Your task to perform on an android device: What's on my calendar tomorrow? Image 0: 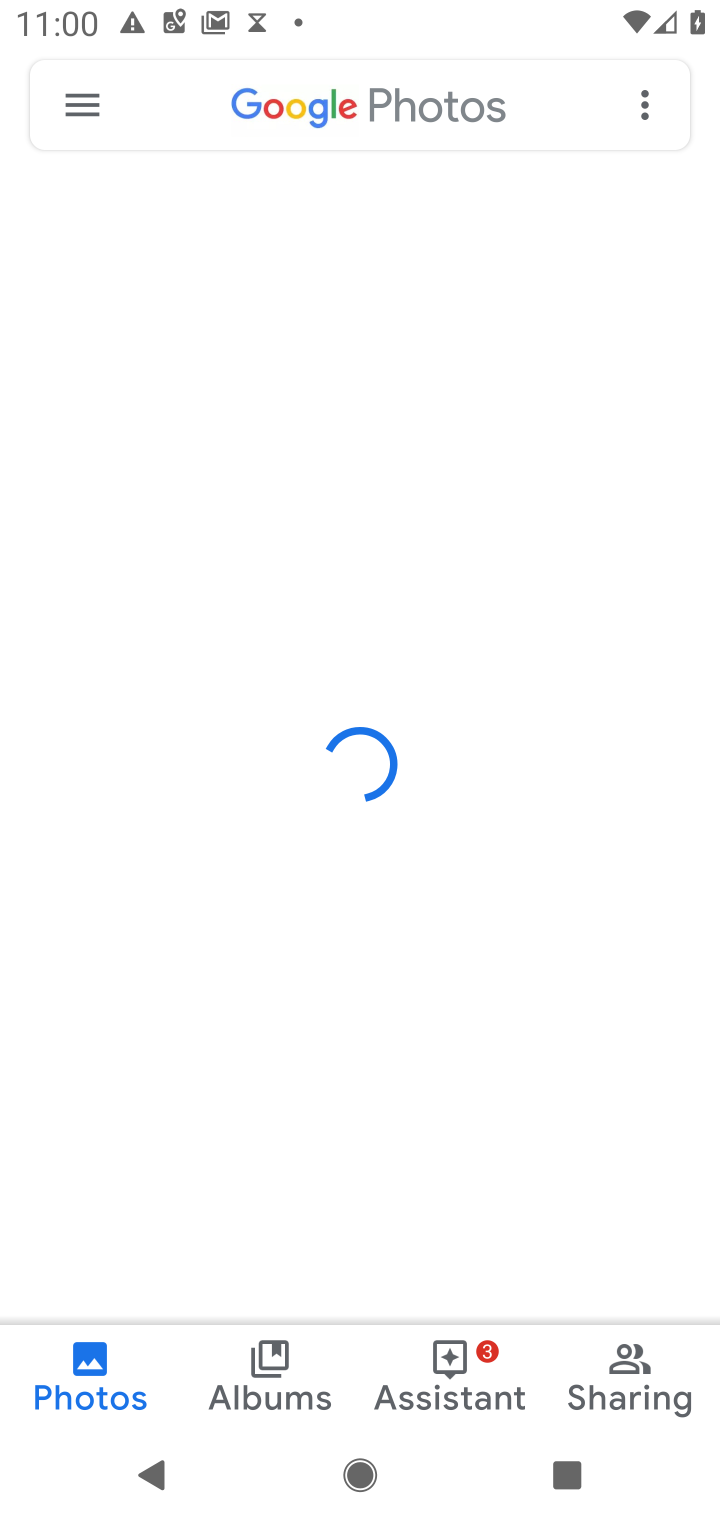
Step 0: press home button
Your task to perform on an android device: What's on my calendar tomorrow? Image 1: 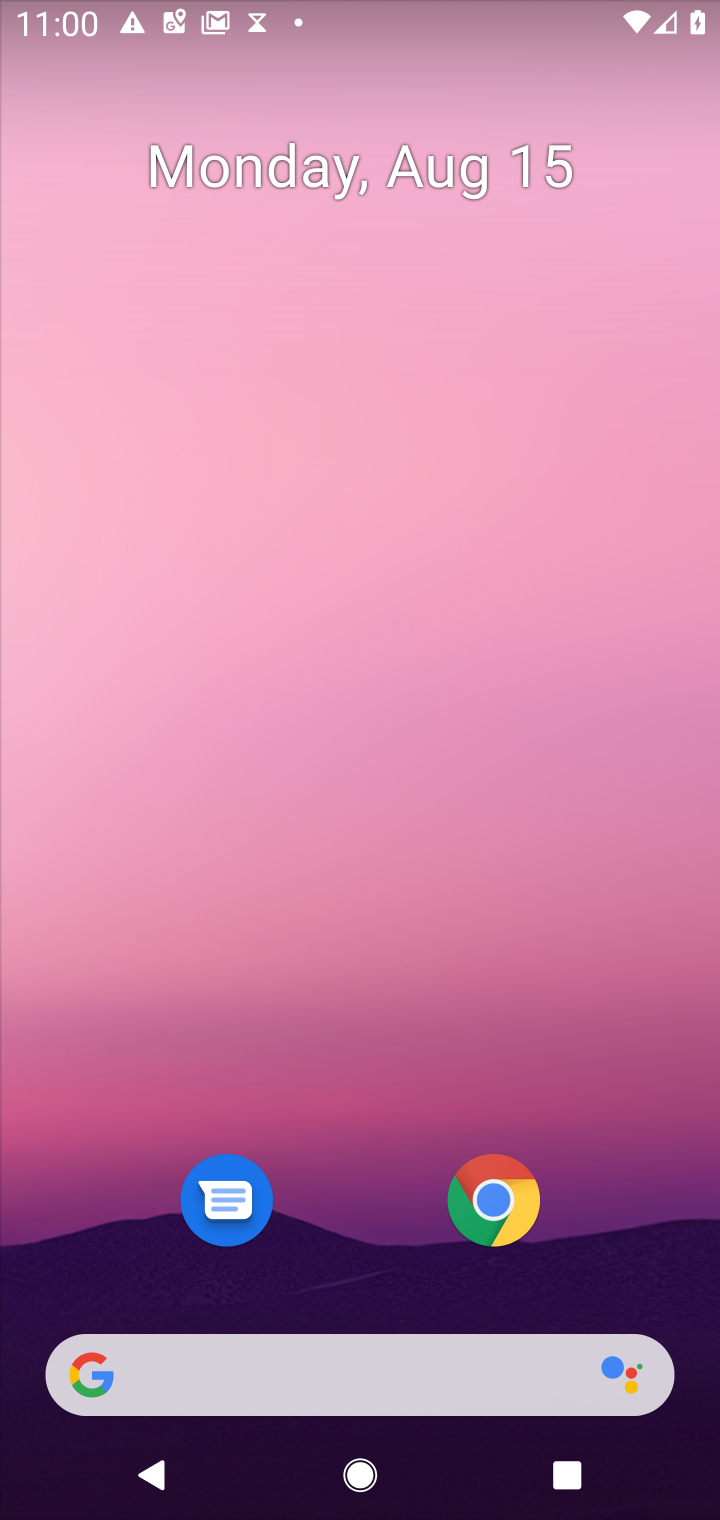
Step 1: drag from (349, 1176) to (416, 224)
Your task to perform on an android device: What's on my calendar tomorrow? Image 2: 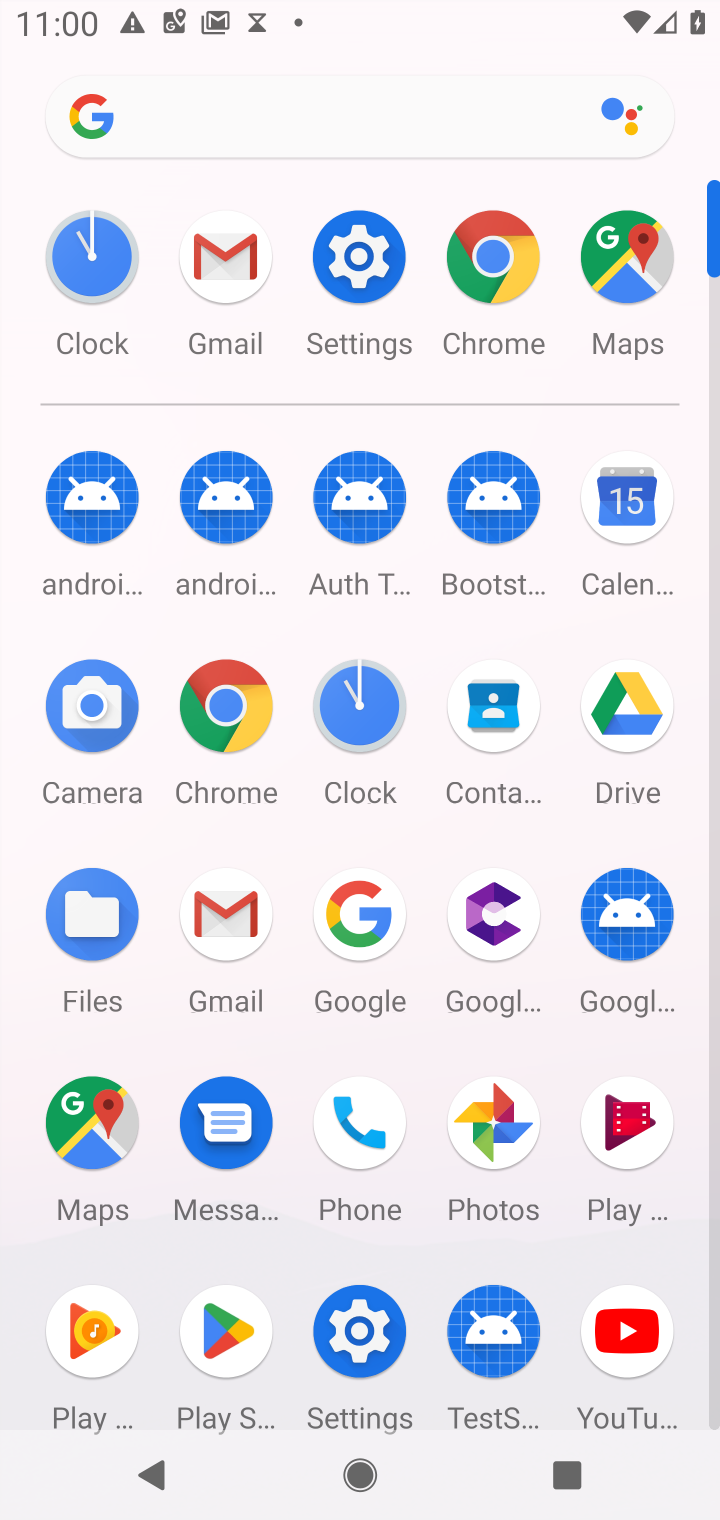
Step 2: click (658, 541)
Your task to perform on an android device: What's on my calendar tomorrow? Image 3: 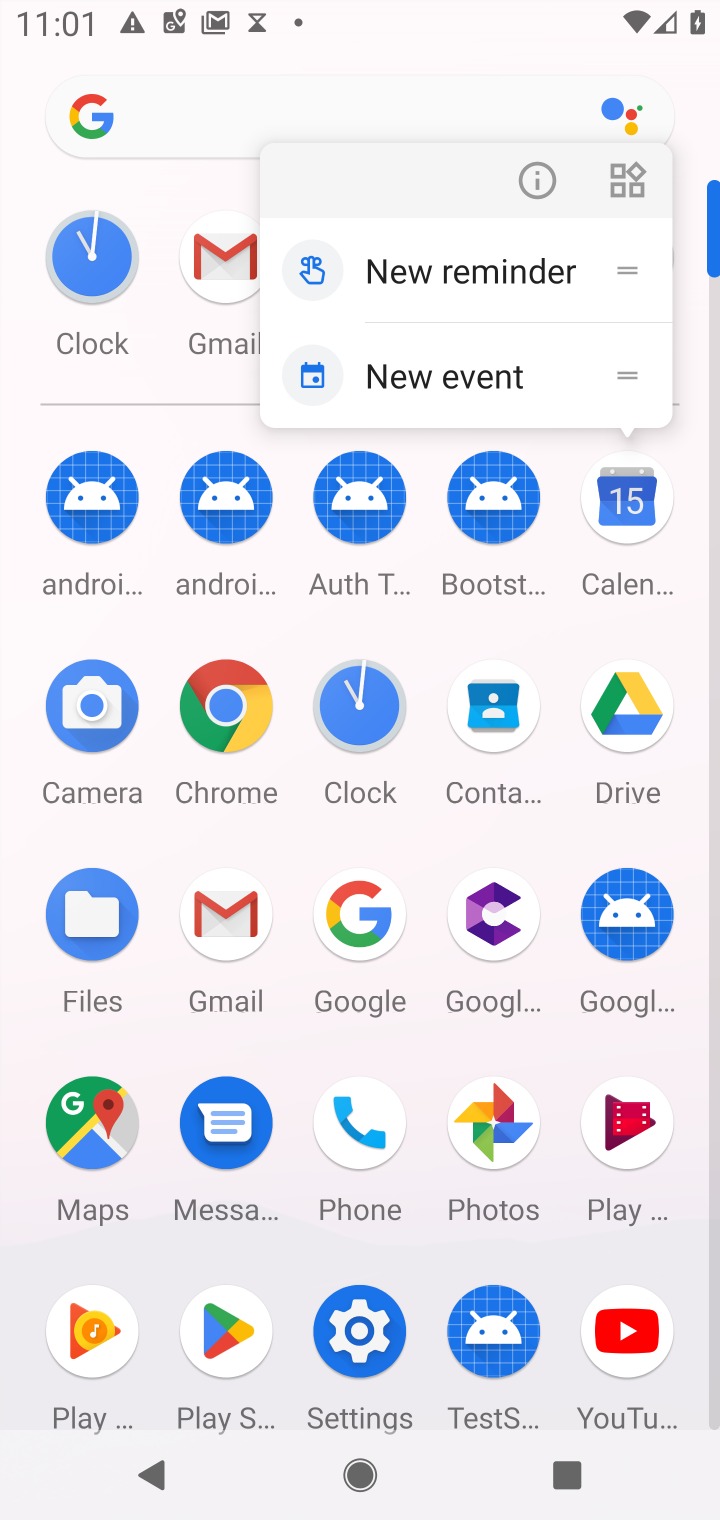
Step 3: click (658, 541)
Your task to perform on an android device: What's on my calendar tomorrow? Image 4: 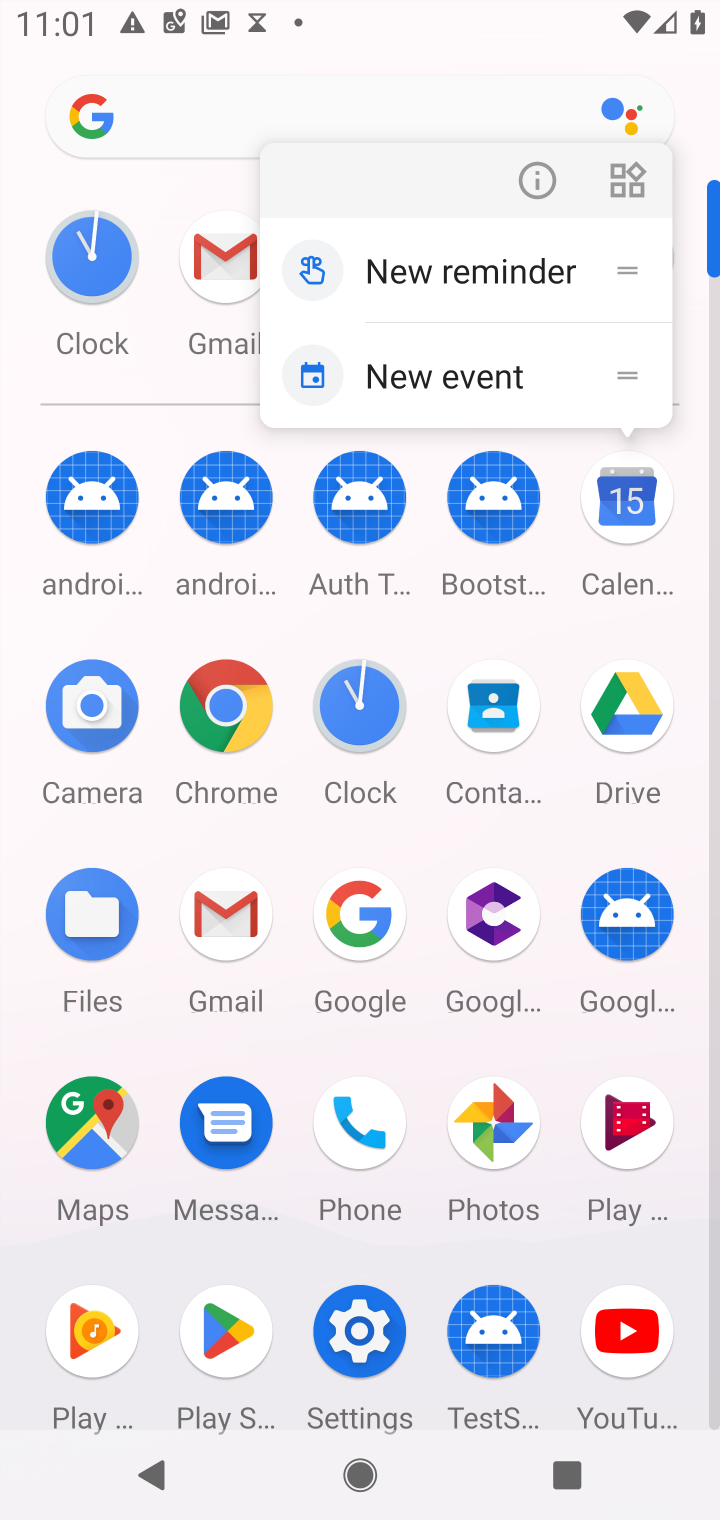
Step 4: click (638, 500)
Your task to perform on an android device: What's on my calendar tomorrow? Image 5: 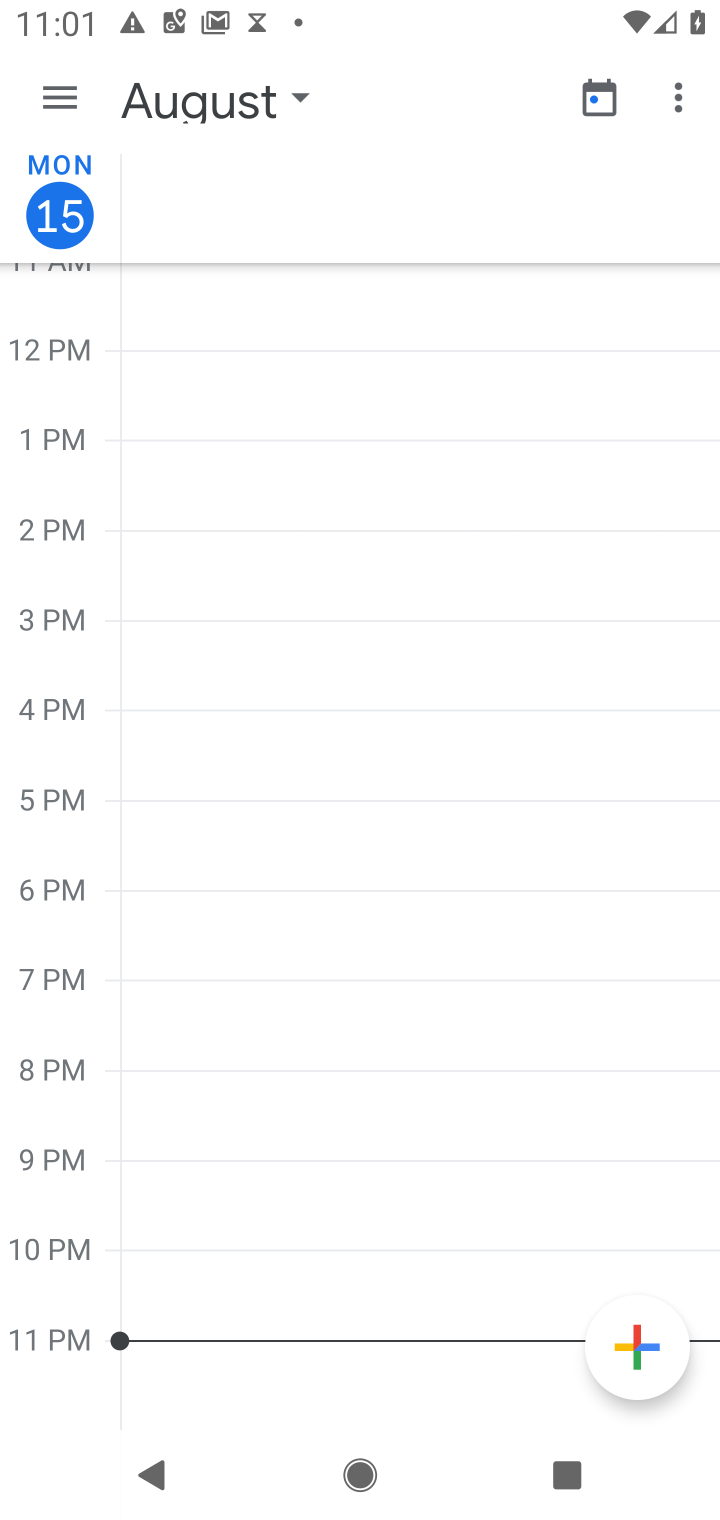
Step 5: click (269, 96)
Your task to perform on an android device: What's on my calendar tomorrow? Image 6: 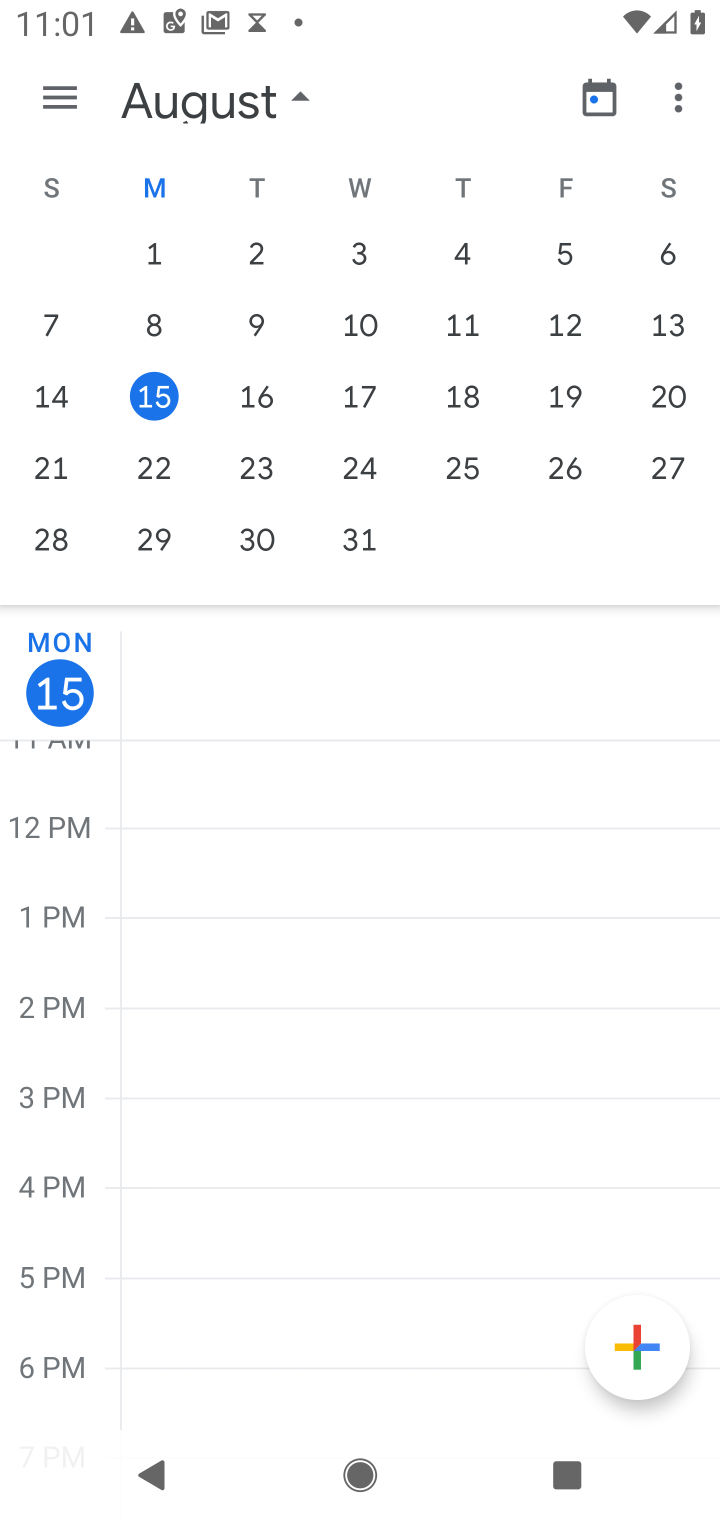
Step 6: click (256, 410)
Your task to perform on an android device: What's on my calendar tomorrow? Image 7: 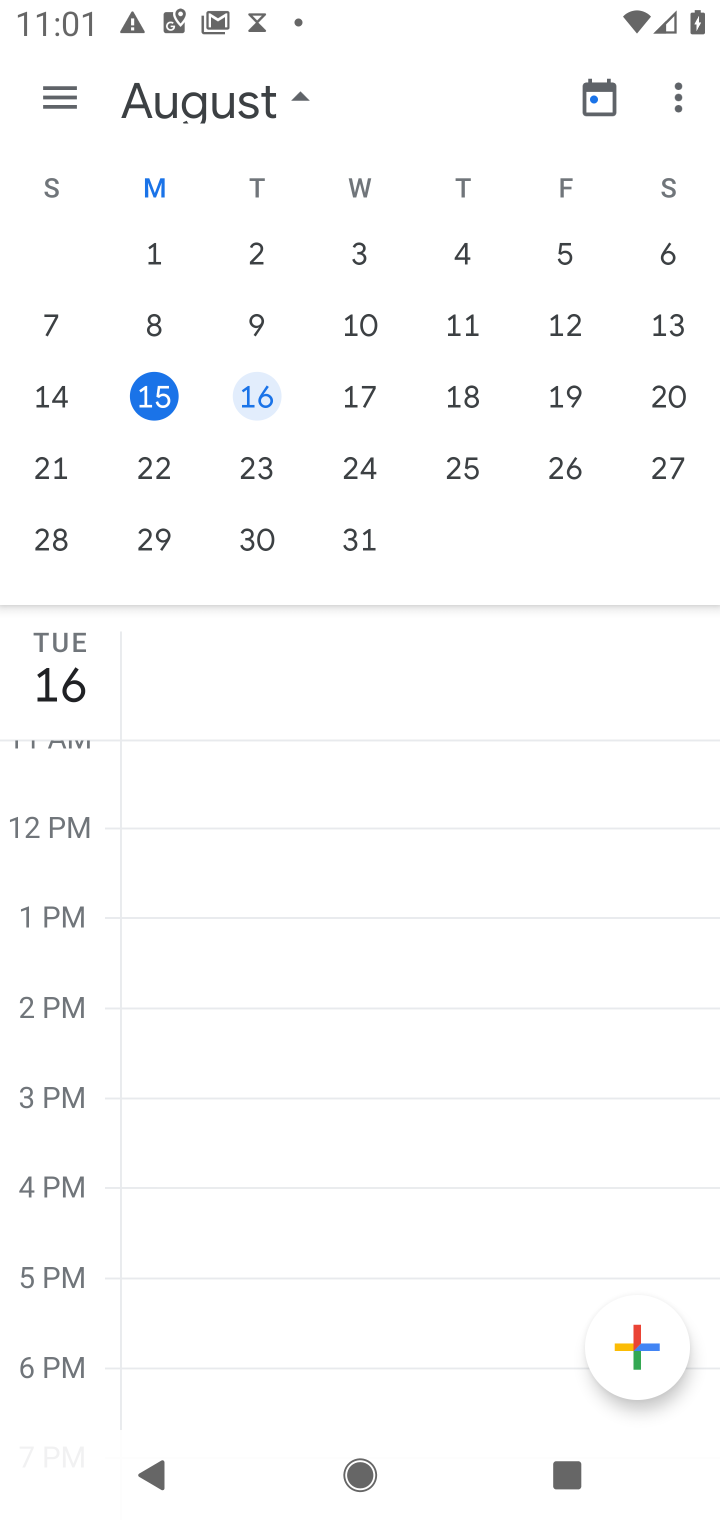
Step 7: click (256, 410)
Your task to perform on an android device: What's on my calendar tomorrow? Image 8: 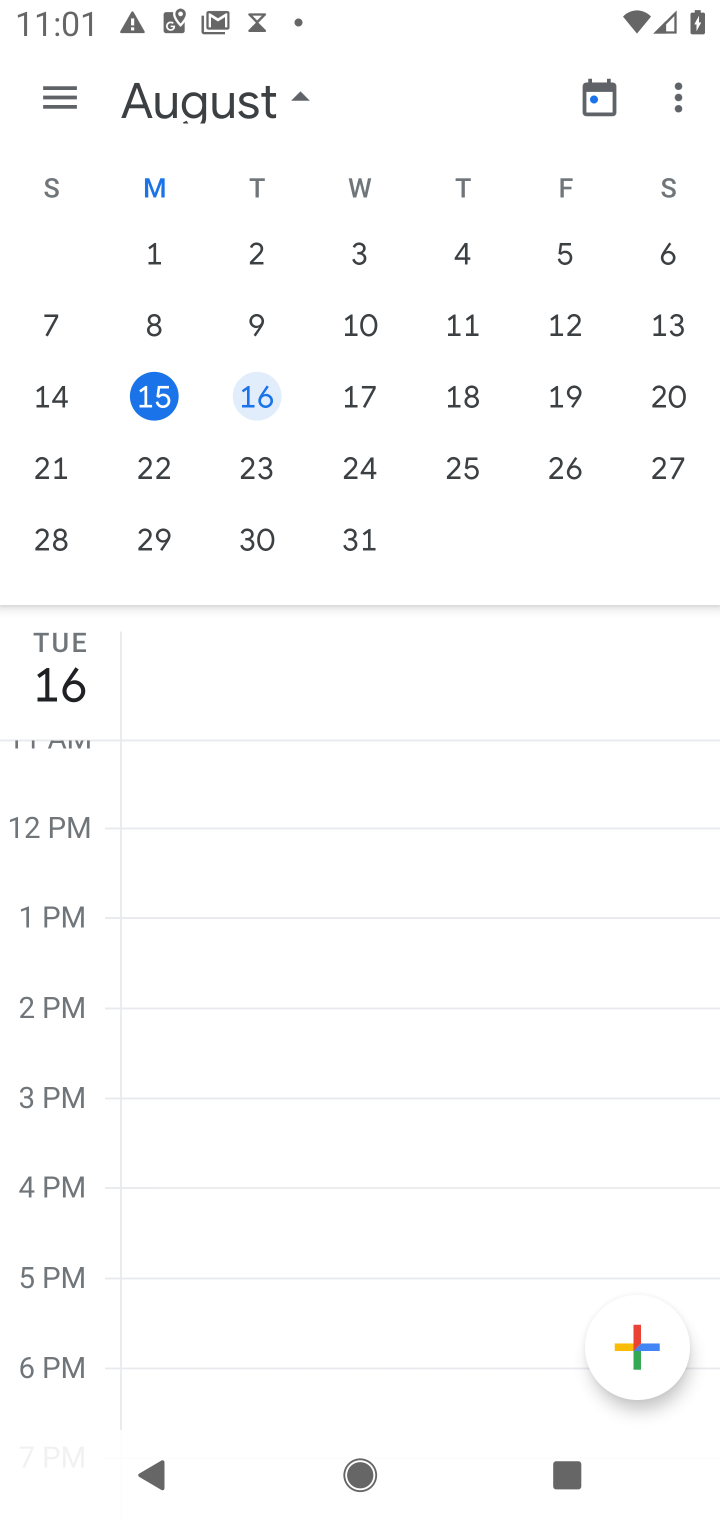
Step 8: task complete